Your task to perform on an android device: turn on javascript in the chrome app Image 0: 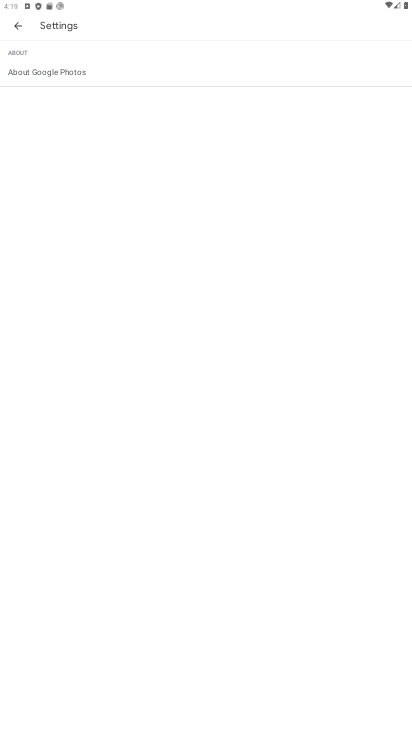
Step 0: press home button
Your task to perform on an android device: turn on javascript in the chrome app Image 1: 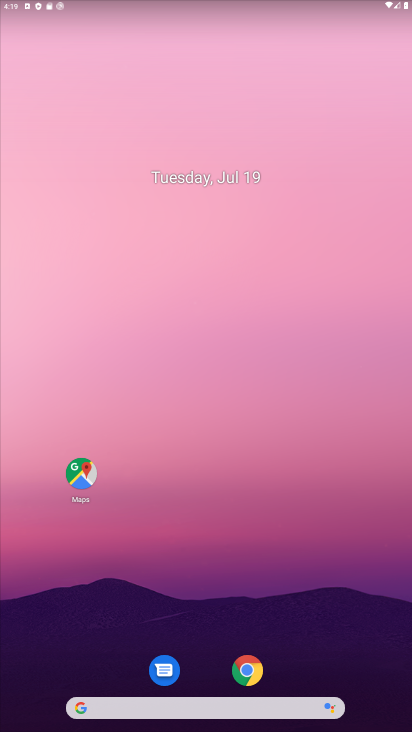
Step 1: drag from (265, 708) to (366, 18)
Your task to perform on an android device: turn on javascript in the chrome app Image 2: 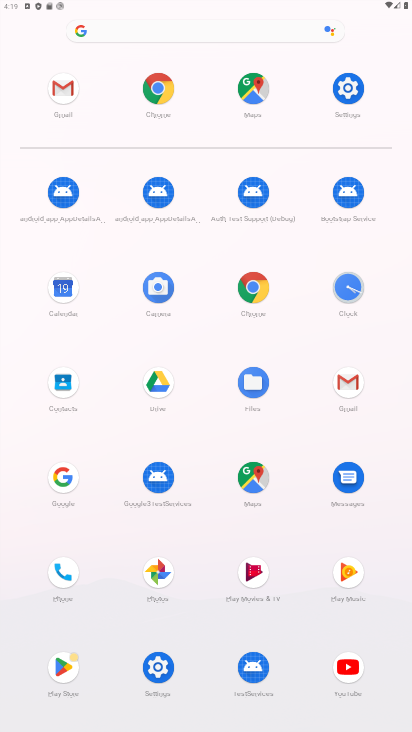
Step 2: click (254, 290)
Your task to perform on an android device: turn on javascript in the chrome app Image 3: 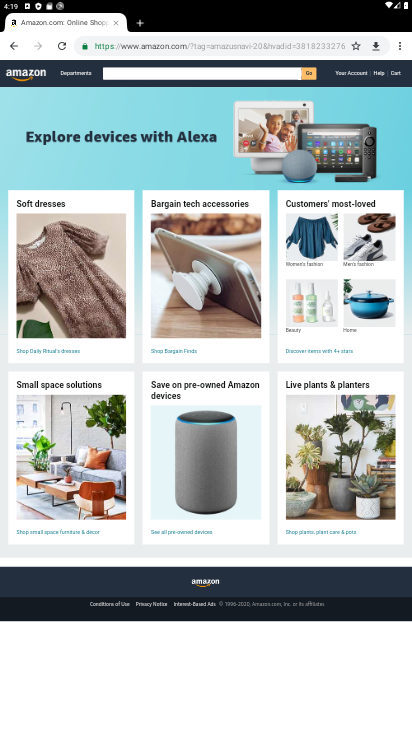
Step 3: drag from (401, 42) to (311, 307)
Your task to perform on an android device: turn on javascript in the chrome app Image 4: 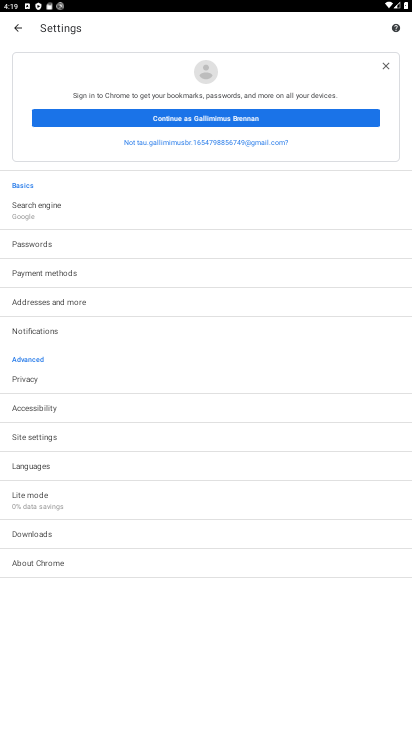
Step 4: click (49, 445)
Your task to perform on an android device: turn on javascript in the chrome app Image 5: 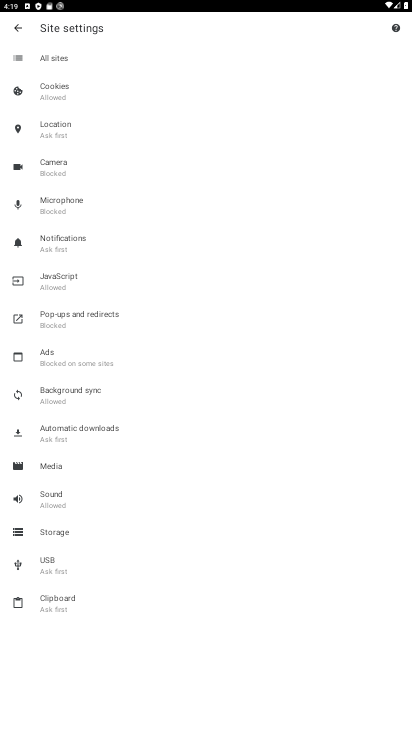
Step 5: click (61, 281)
Your task to perform on an android device: turn on javascript in the chrome app Image 6: 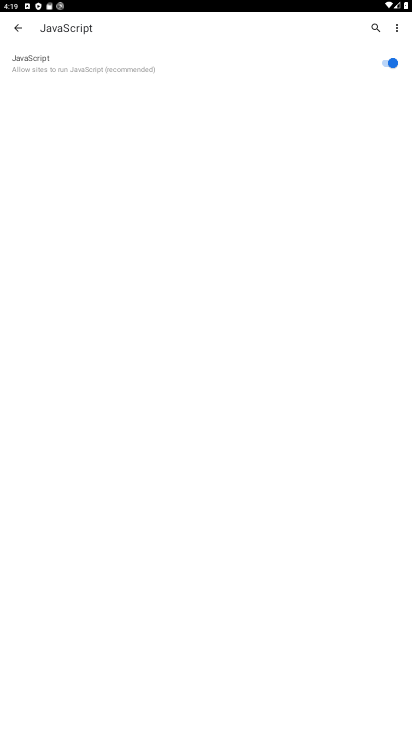
Step 6: task complete